Your task to perform on an android device: Search for pizza restaurants on Maps Image 0: 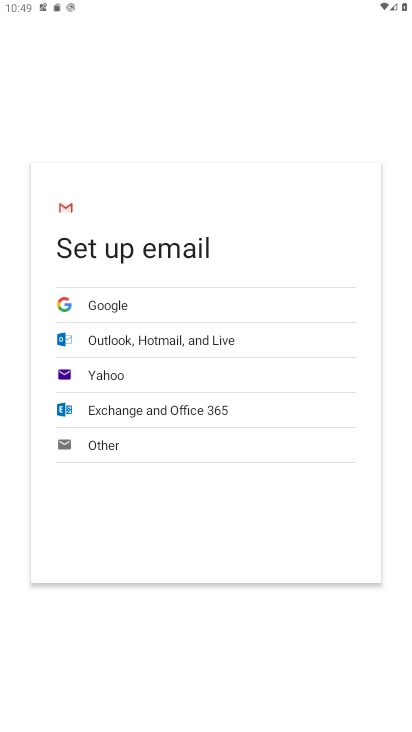
Step 0: press home button
Your task to perform on an android device: Search for pizza restaurants on Maps Image 1: 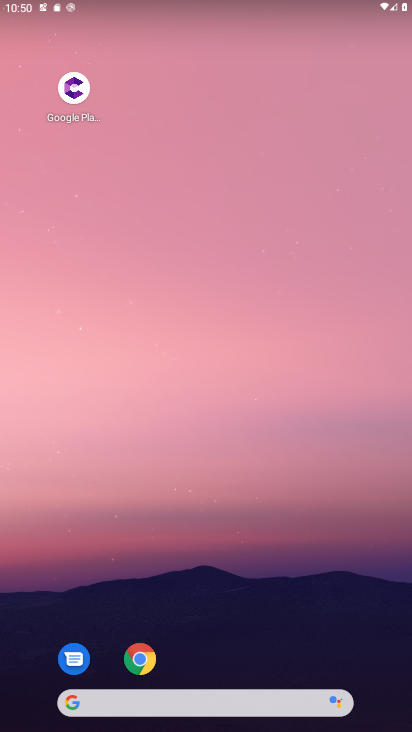
Step 1: drag from (245, 671) to (322, 249)
Your task to perform on an android device: Search for pizza restaurants on Maps Image 2: 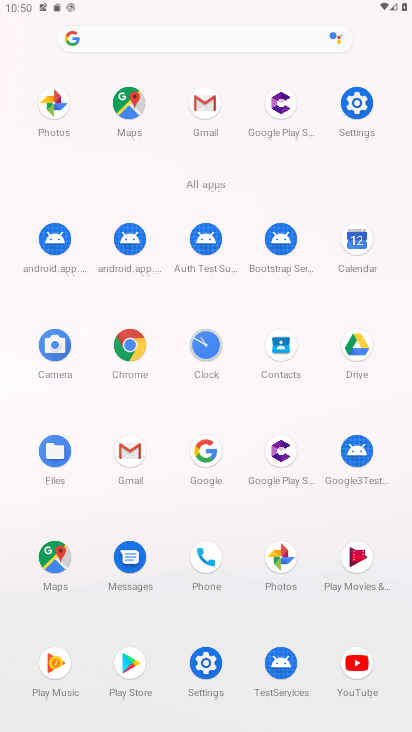
Step 2: click (55, 562)
Your task to perform on an android device: Search for pizza restaurants on Maps Image 3: 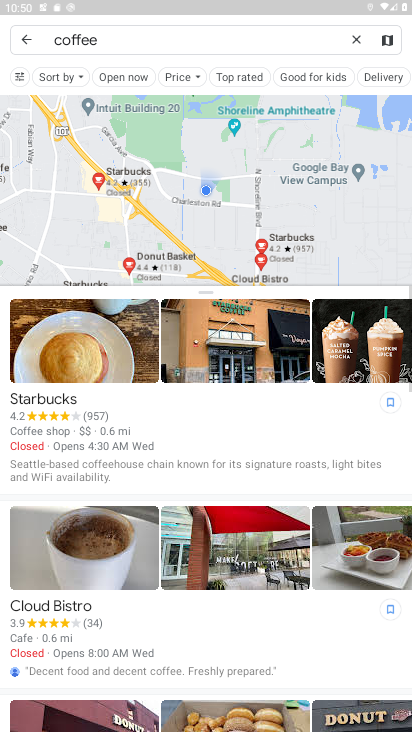
Step 3: click (355, 40)
Your task to perform on an android device: Search for pizza restaurants on Maps Image 4: 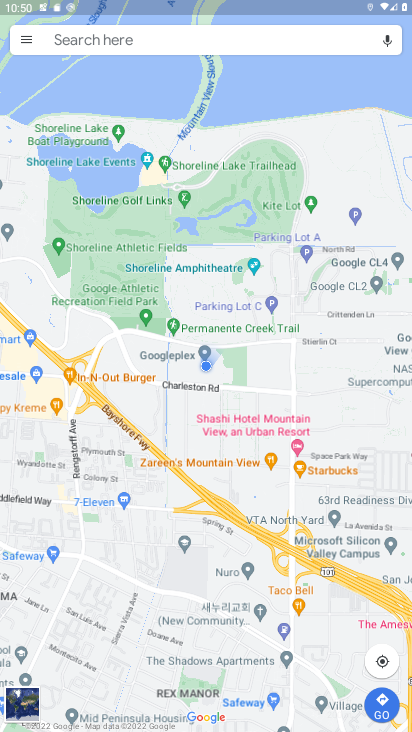
Step 4: click (207, 45)
Your task to perform on an android device: Search for pizza restaurants on Maps Image 5: 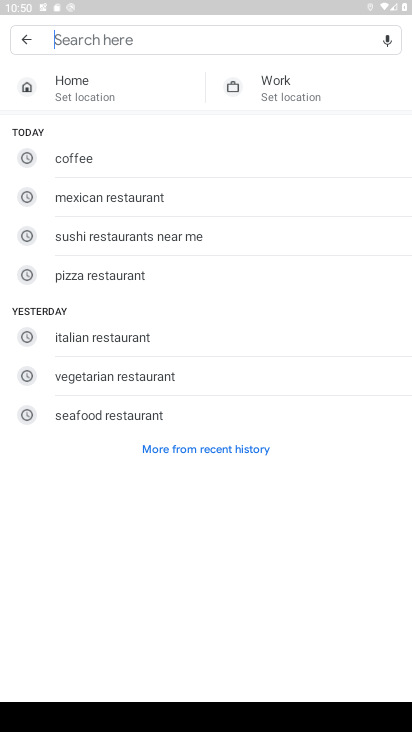
Step 5: type "Pizza restaurants"
Your task to perform on an android device: Search for pizza restaurants on Maps Image 6: 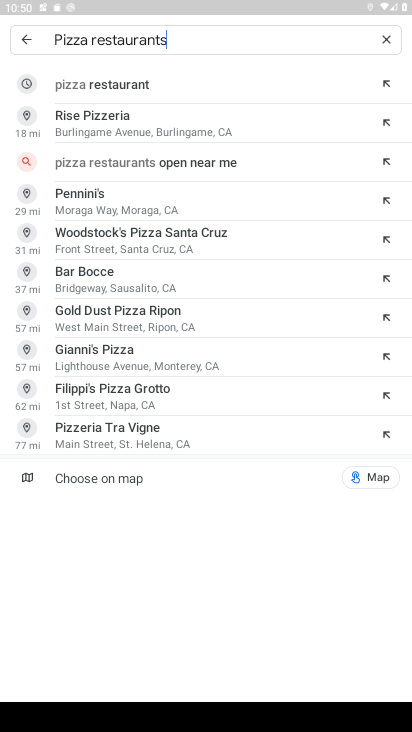
Step 6: click (165, 77)
Your task to perform on an android device: Search for pizza restaurants on Maps Image 7: 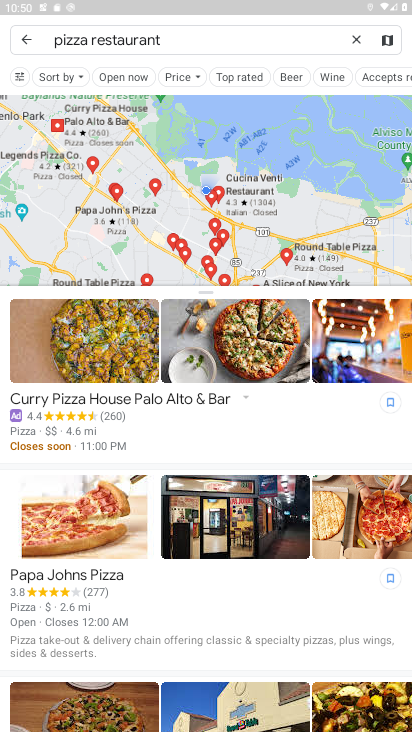
Step 7: task complete